Your task to perform on an android device: refresh tabs in the chrome app Image 0: 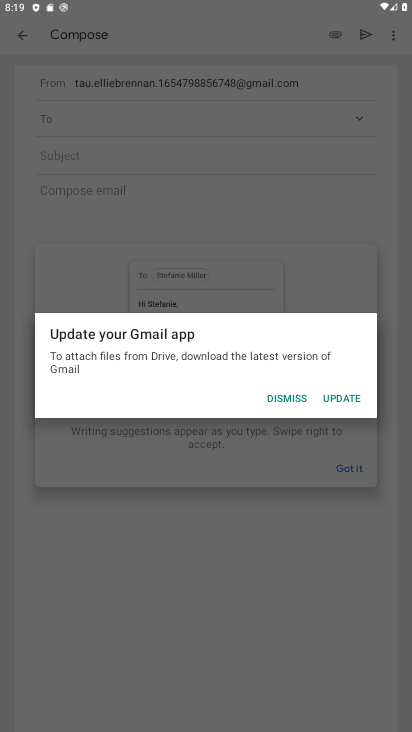
Step 0: click (308, 400)
Your task to perform on an android device: refresh tabs in the chrome app Image 1: 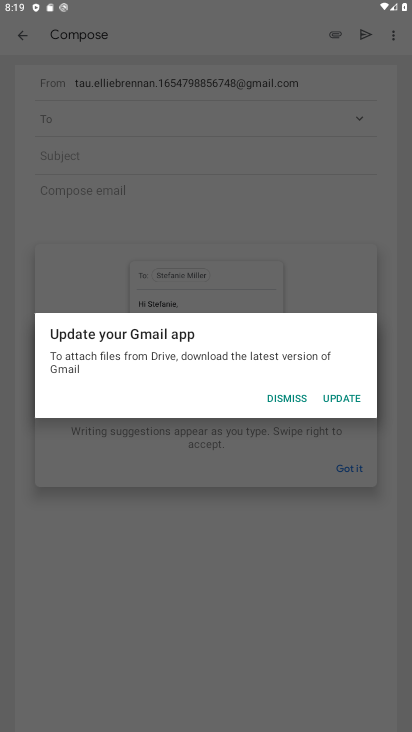
Step 1: click (286, 395)
Your task to perform on an android device: refresh tabs in the chrome app Image 2: 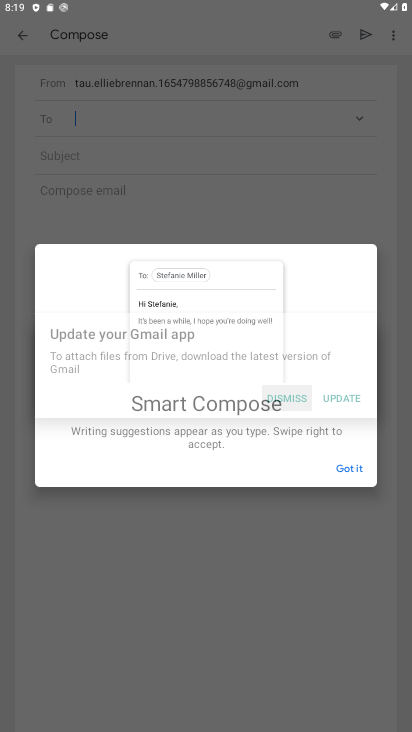
Step 2: click (290, 393)
Your task to perform on an android device: refresh tabs in the chrome app Image 3: 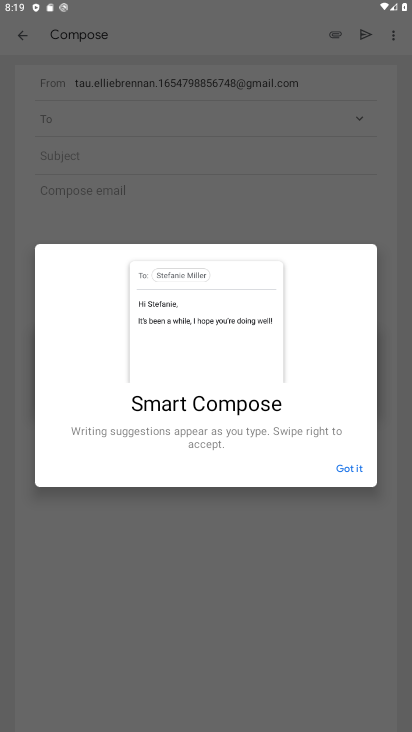
Step 3: click (297, 391)
Your task to perform on an android device: refresh tabs in the chrome app Image 4: 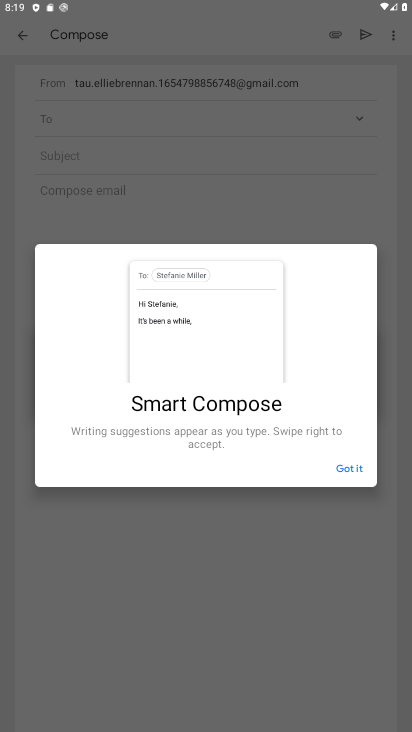
Step 4: click (344, 461)
Your task to perform on an android device: refresh tabs in the chrome app Image 5: 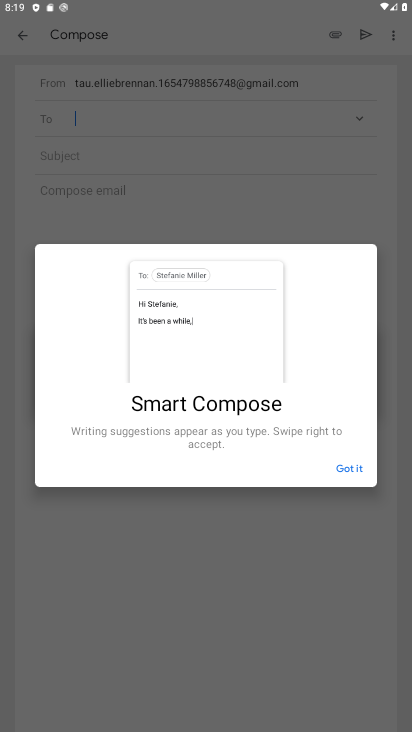
Step 5: click (353, 464)
Your task to perform on an android device: refresh tabs in the chrome app Image 6: 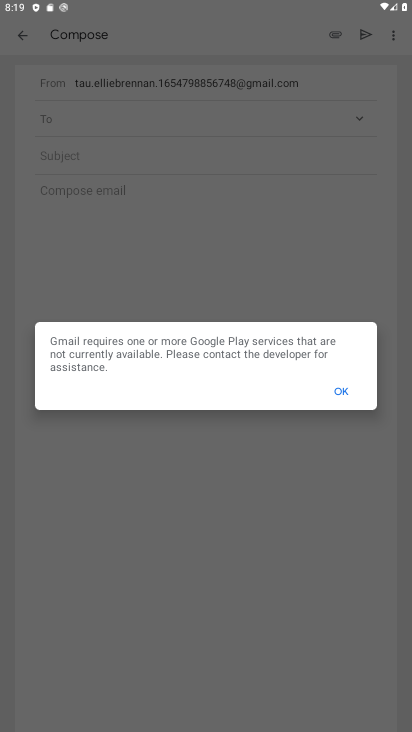
Step 6: click (356, 463)
Your task to perform on an android device: refresh tabs in the chrome app Image 7: 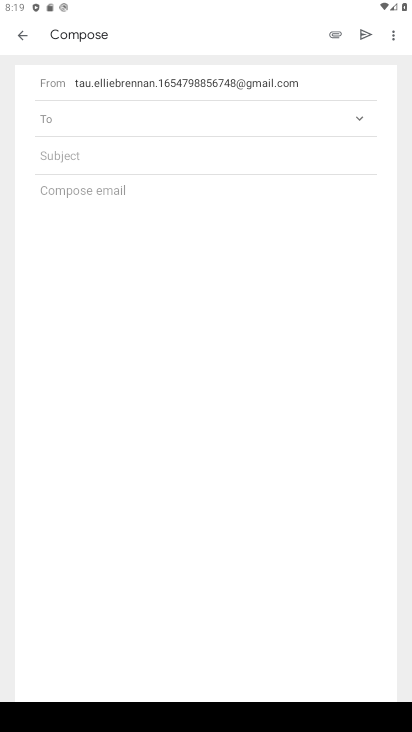
Step 7: click (10, 24)
Your task to perform on an android device: refresh tabs in the chrome app Image 8: 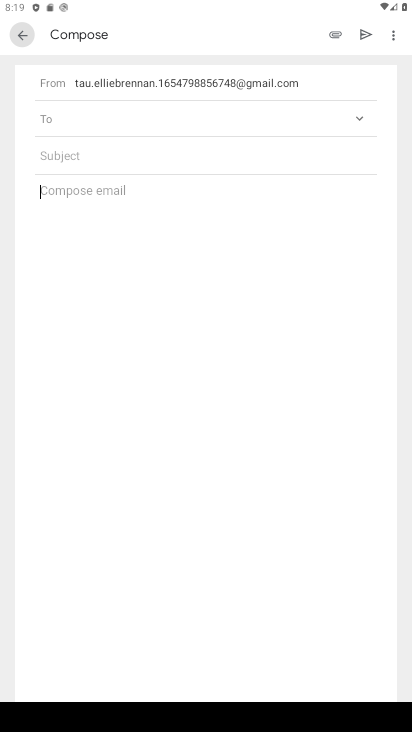
Step 8: click (11, 25)
Your task to perform on an android device: refresh tabs in the chrome app Image 9: 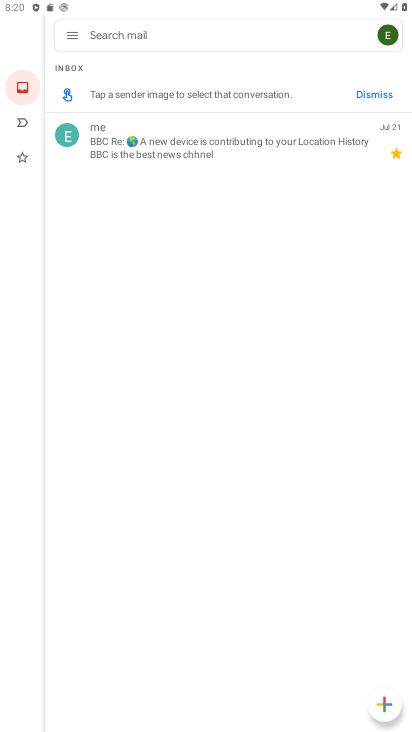
Step 9: press back button
Your task to perform on an android device: refresh tabs in the chrome app Image 10: 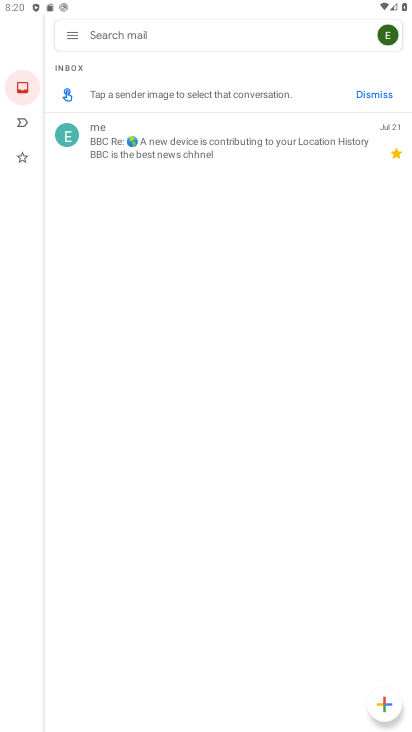
Step 10: press back button
Your task to perform on an android device: refresh tabs in the chrome app Image 11: 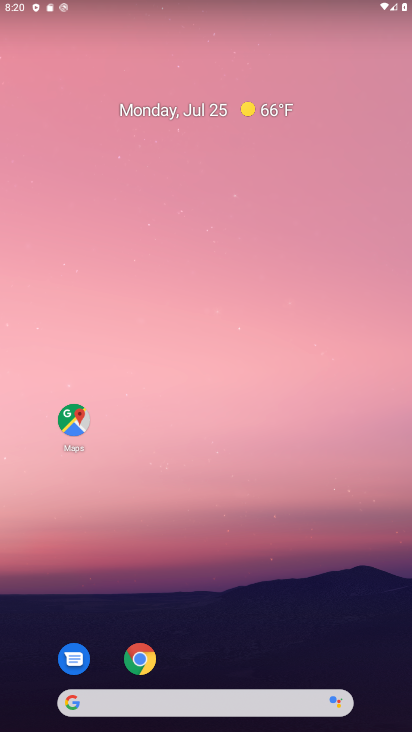
Step 11: drag from (231, 558) to (225, 135)
Your task to perform on an android device: refresh tabs in the chrome app Image 12: 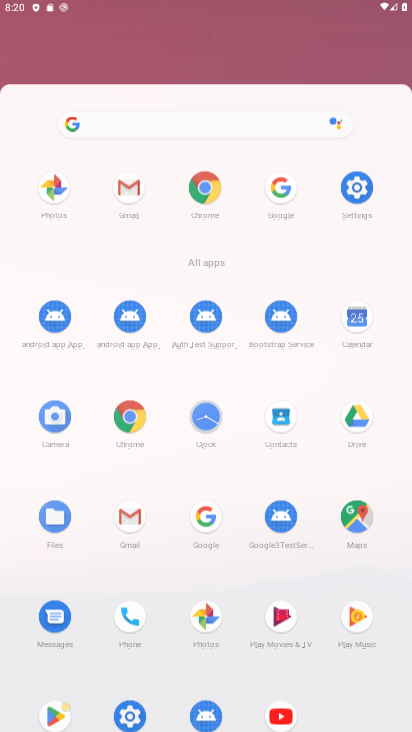
Step 12: drag from (241, 370) to (250, 33)
Your task to perform on an android device: refresh tabs in the chrome app Image 13: 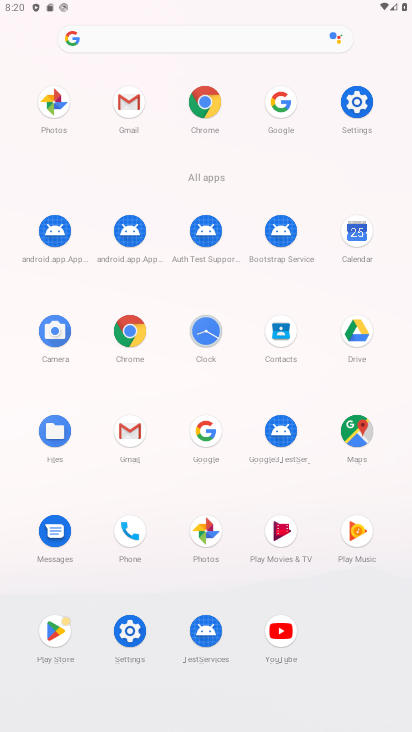
Step 13: click (197, 112)
Your task to perform on an android device: refresh tabs in the chrome app Image 14: 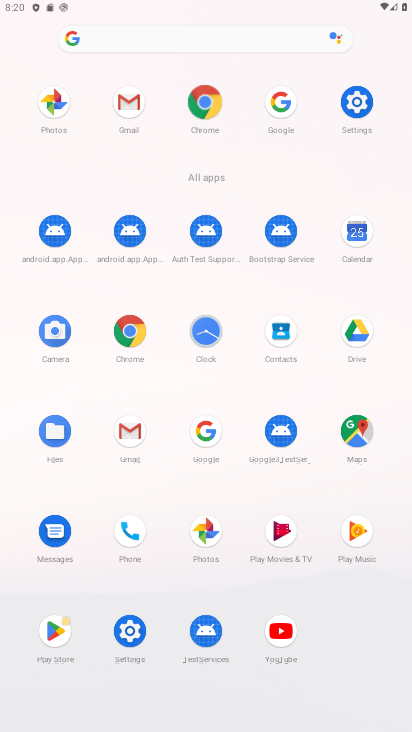
Step 14: click (196, 111)
Your task to perform on an android device: refresh tabs in the chrome app Image 15: 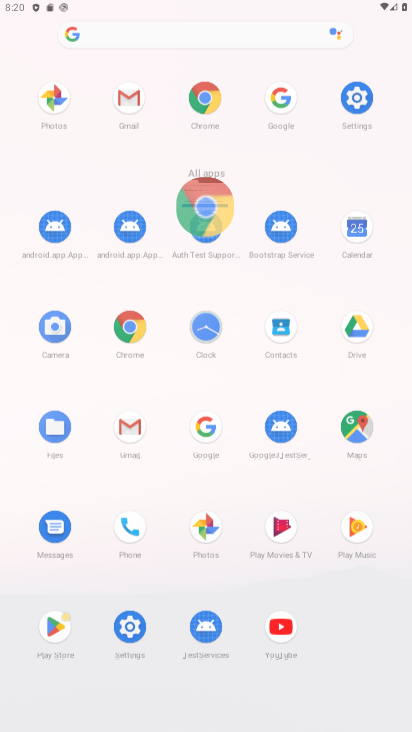
Step 15: click (196, 110)
Your task to perform on an android device: refresh tabs in the chrome app Image 16: 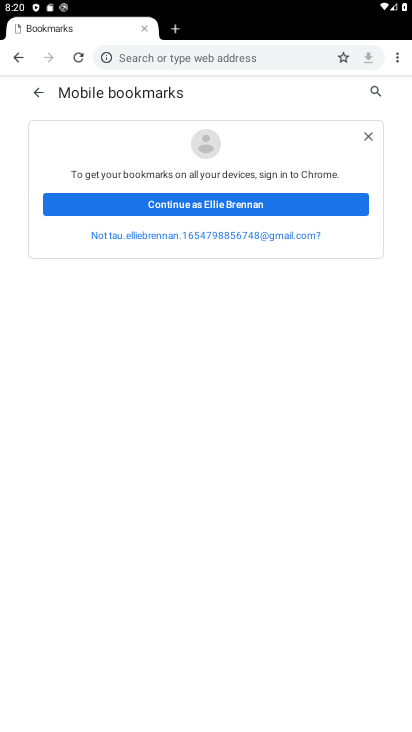
Step 16: click (372, 131)
Your task to perform on an android device: refresh tabs in the chrome app Image 17: 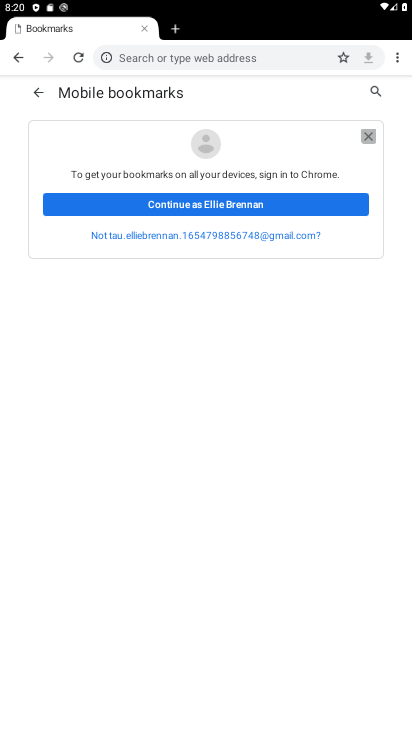
Step 17: click (367, 129)
Your task to perform on an android device: refresh tabs in the chrome app Image 18: 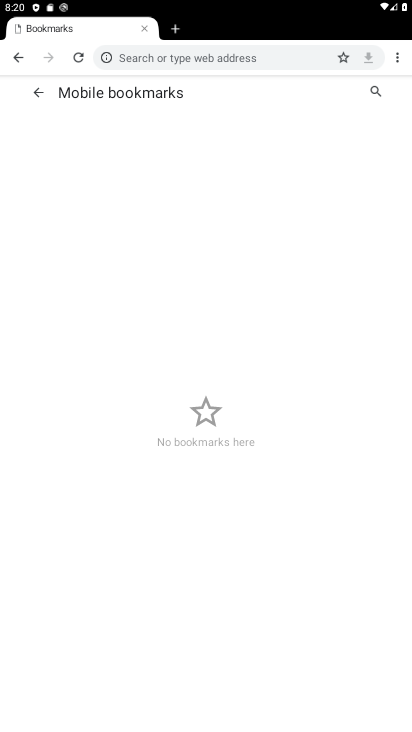
Step 18: drag from (394, 56) to (119, 248)
Your task to perform on an android device: refresh tabs in the chrome app Image 19: 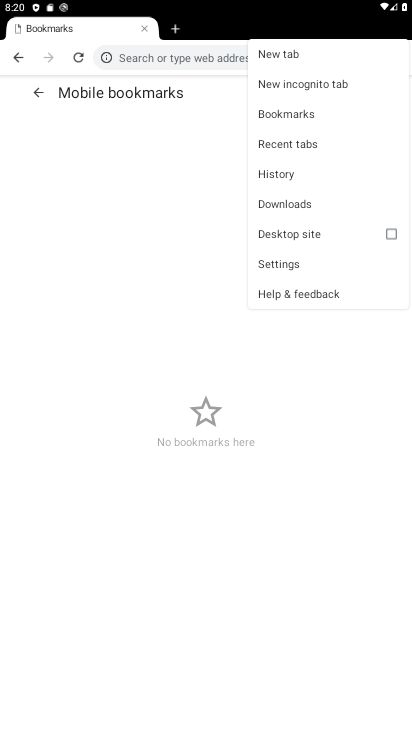
Step 19: click (112, 239)
Your task to perform on an android device: refresh tabs in the chrome app Image 20: 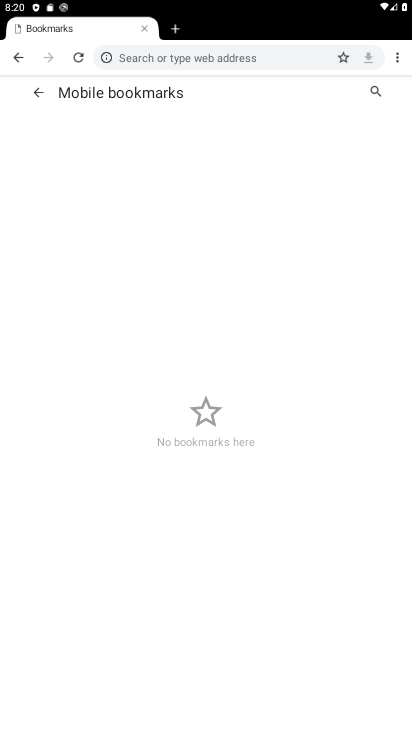
Step 20: click (74, 46)
Your task to perform on an android device: refresh tabs in the chrome app Image 21: 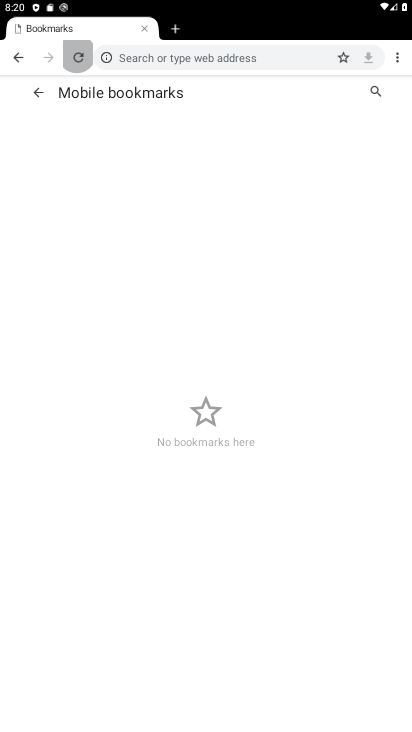
Step 21: click (76, 51)
Your task to perform on an android device: refresh tabs in the chrome app Image 22: 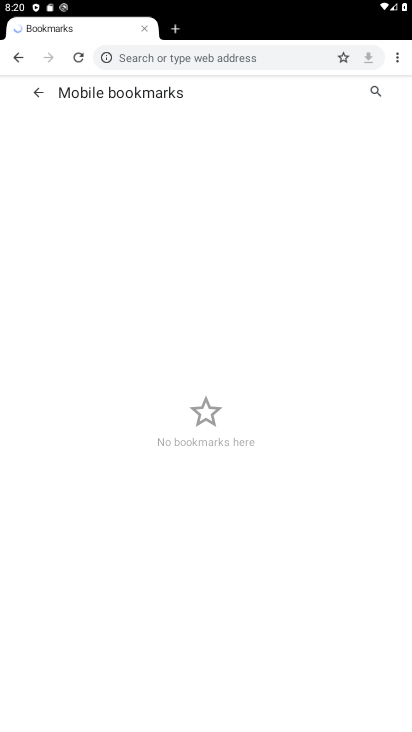
Step 22: click (76, 52)
Your task to perform on an android device: refresh tabs in the chrome app Image 23: 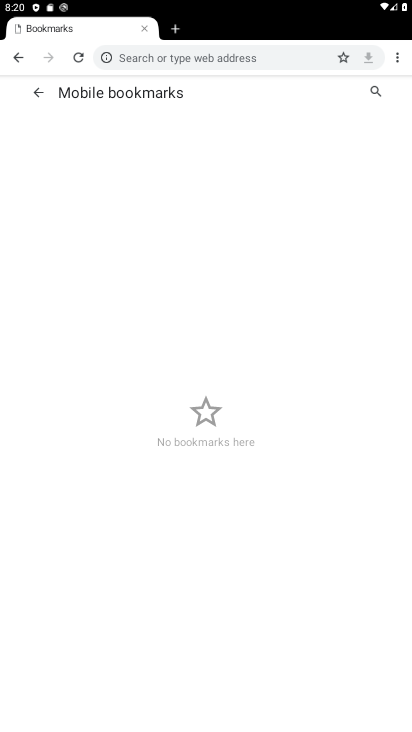
Step 23: task complete